Your task to perform on an android device: allow notifications from all sites in the chrome app Image 0: 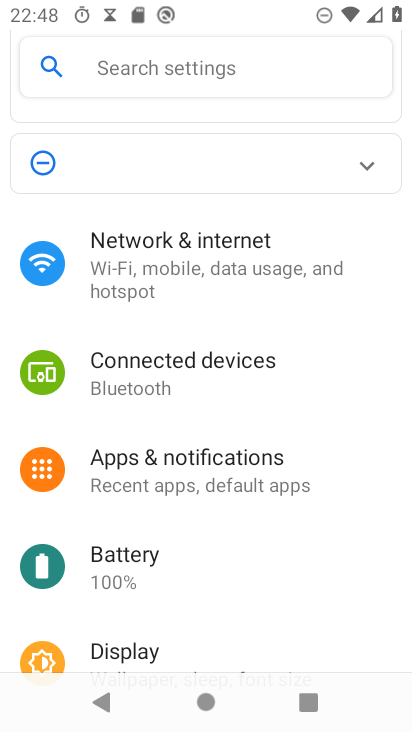
Step 0: press home button
Your task to perform on an android device: allow notifications from all sites in the chrome app Image 1: 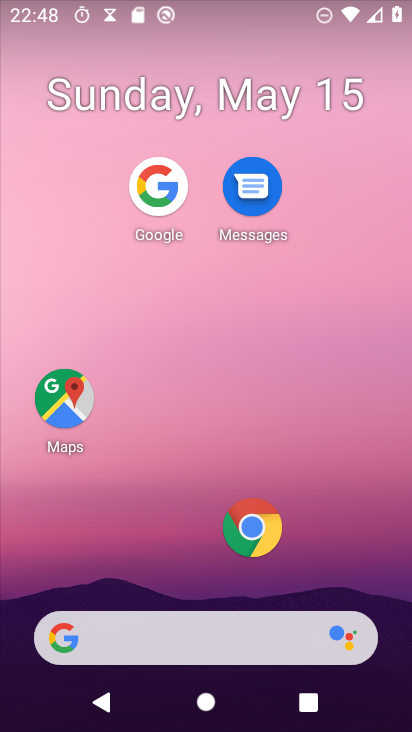
Step 1: drag from (157, 649) to (223, 193)
Your task to perform on an android device: allow notifications from all sites in the chrome app Image 2: 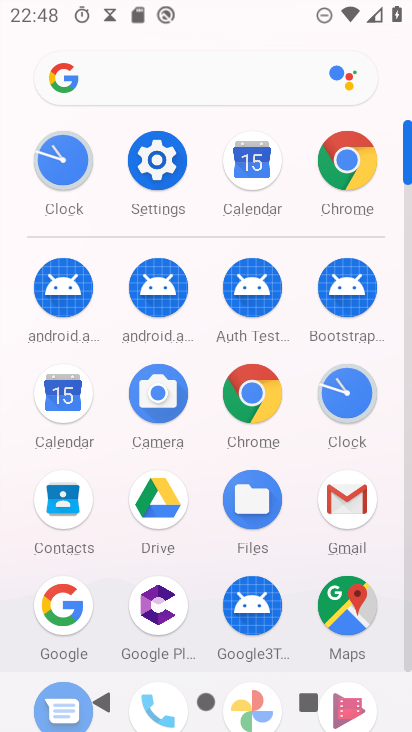
Step 2: click (344, 174)
Your task to perform on an android device: allow notifications from all sites in the chrome app Image 3: 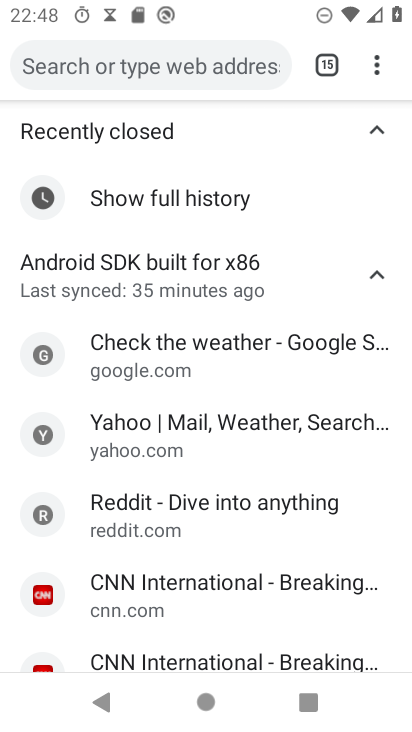
Step 3: drag from (379, 75) to (180, 552)
Your task to perform on an android device: allow notifications from all sites in the chrome app Image 4: 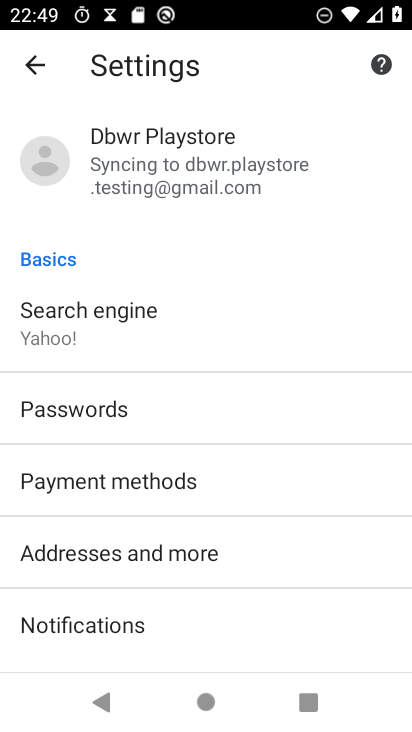
Step 4: drag from (163, 630) to (240, 422)
Your task to perform on an android device: allow notifications from all sites in the chrome app Image 5: 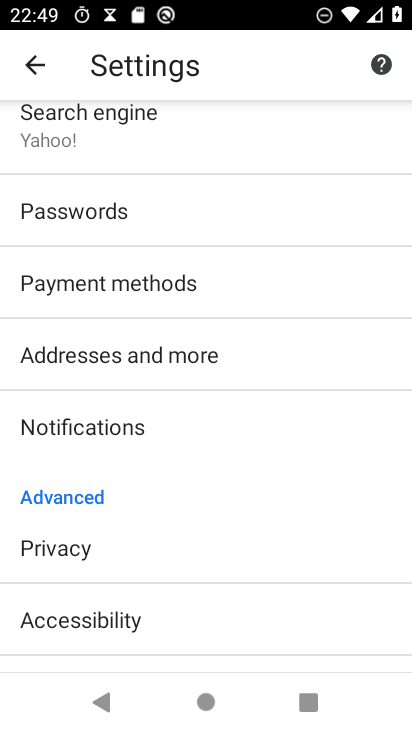
Step 5: drag from (169, 615) to (270, 326)
Your task to perform on an android device: allow notifications from all sites in the chrome app Image 6: 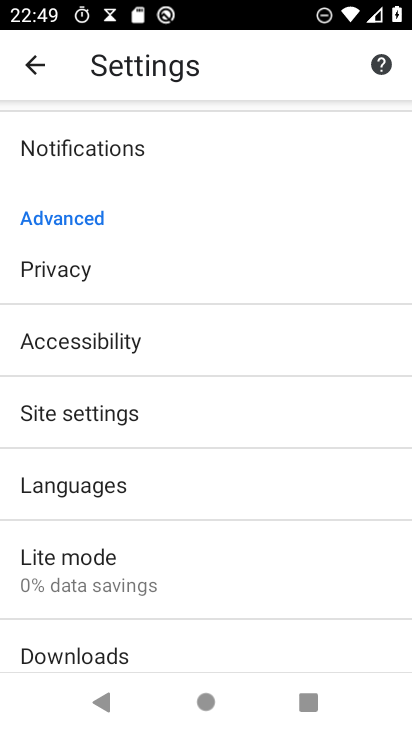
Step 6: click (99, 424)
Your task to perform on an android device: allow notifications from all sites in the chrome app Image 7: 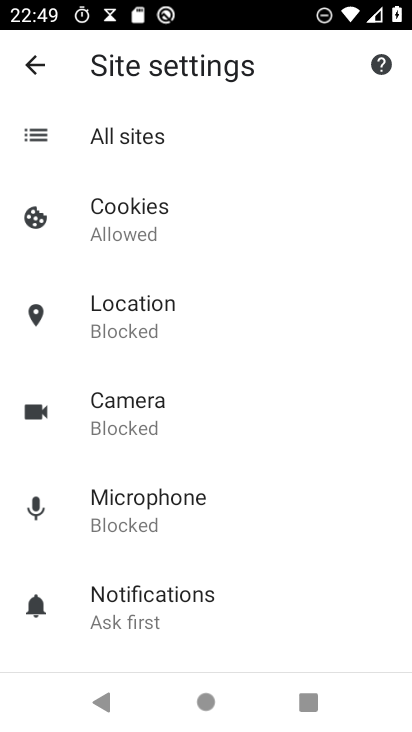
Step 7: click (159, 598)
Your task to perform on an android device: allow notifications from all sites in the chrome app Image 8: 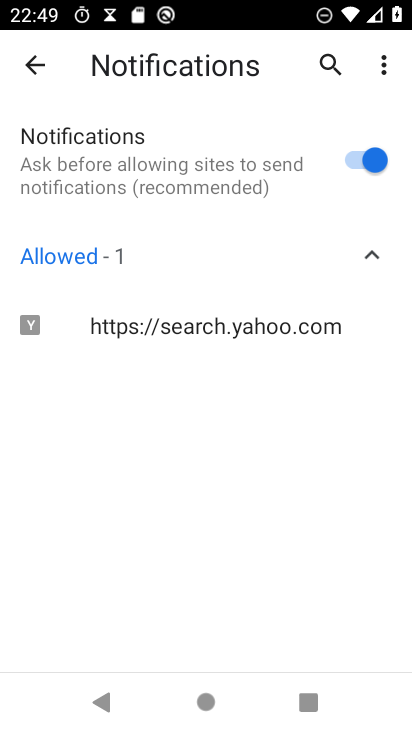
Step 8: task complete